Your task to perform on an android device: check android version Image 0: 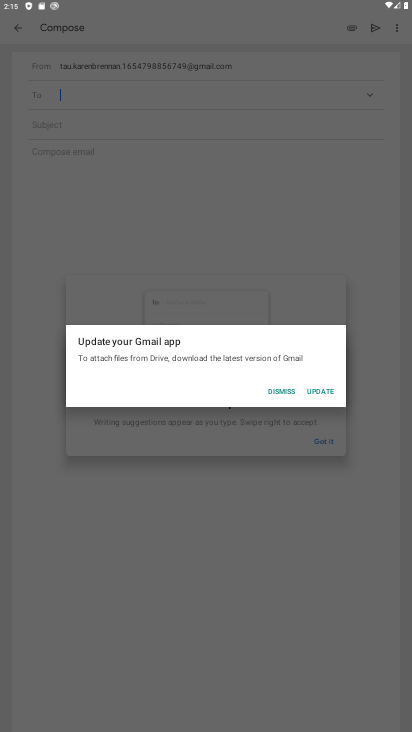
Step 0: press home button
Your task to perform on an android device: check android version Image 1: 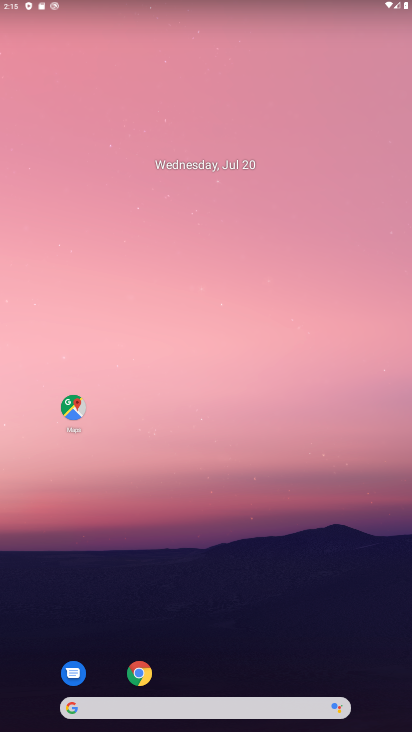
Step 1: drag from (203, 688) to (143, 151)
Your task to perform on an android device: check android version Image 2: 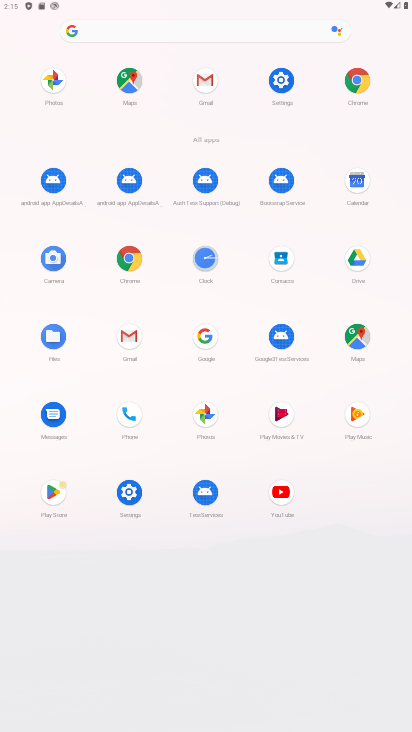
Step 2: click (130, 497)
Your task to perform on an android device: check android version Image 3: 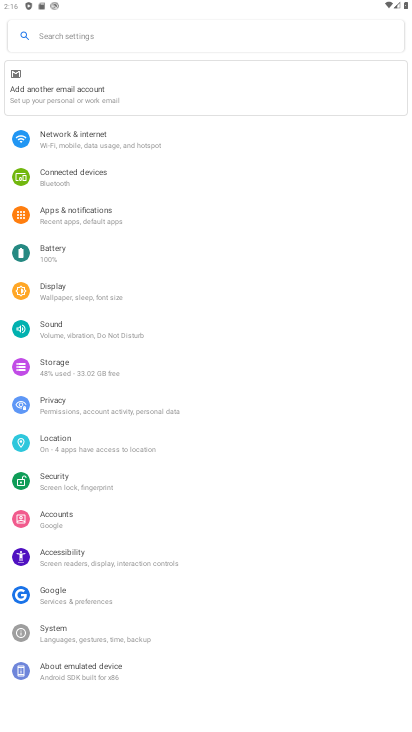
Step 3: click (55, 655)
Your task to perform on an android device: check android version Image 4: 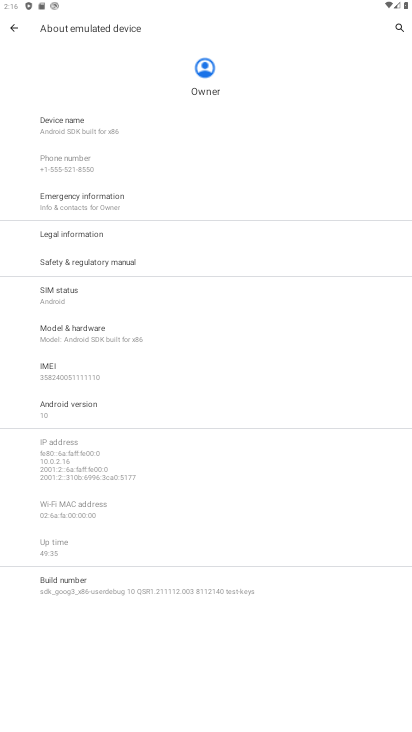
Step 4: click (77, 400)
Your task to perform on an android device: check android version Image 5: 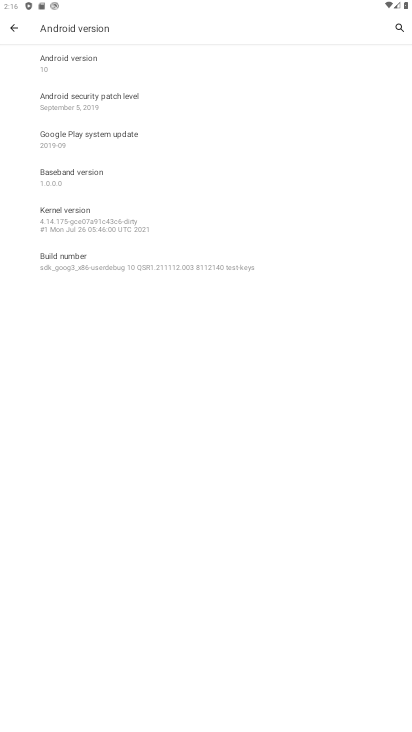
Step 5: click (66, 53)
Your task to perform on an android device: check android version Image 6: 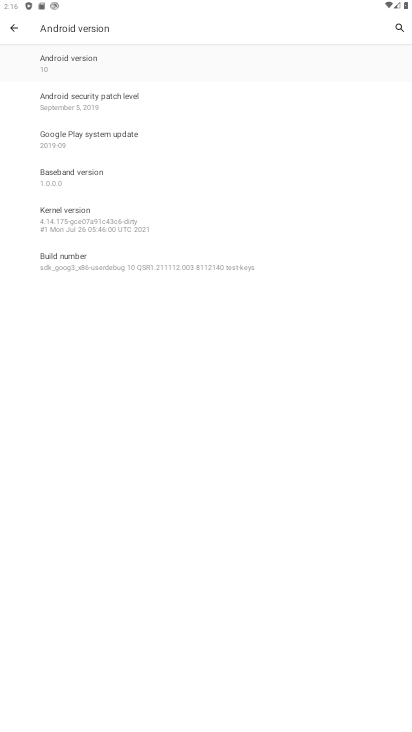
Step 6: task complete